Your task to perform on an android device: change the clock display to digital Image 0: 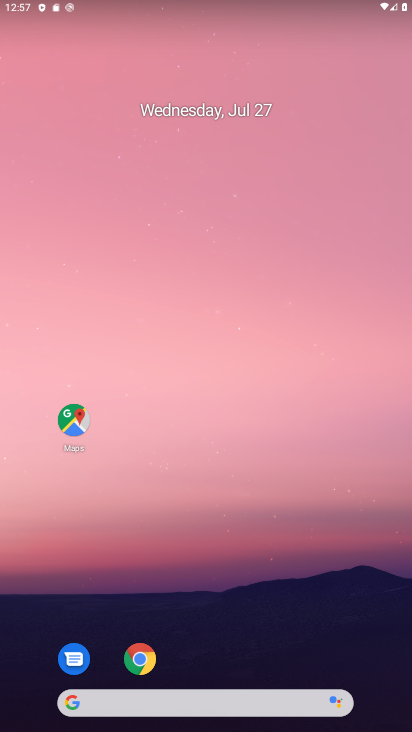
Step 0: drag from (348, 628) to (290, 16)
Your task to perform on an android device: change the clock display to digital Image 1: 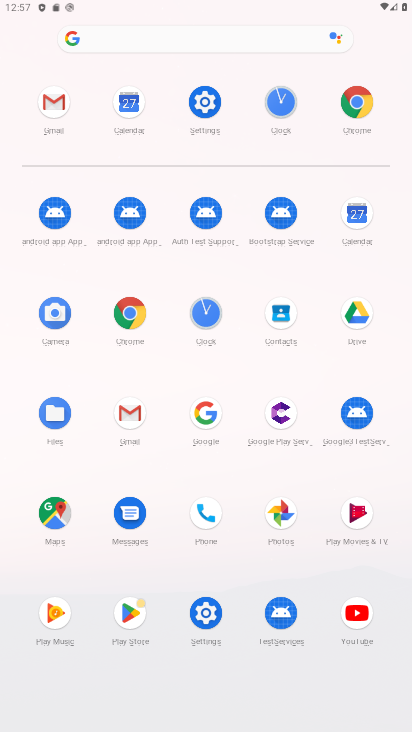
Step 1: click (204, 314)
Your task to perform on an android device: change the clock display to digital Image 2: 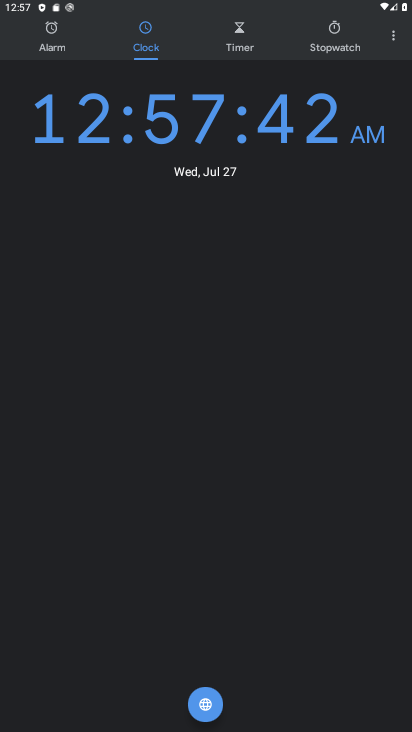
Step 2: click (393, 40)
Your task to perform on an android device: change the clock display to digital Image 3: 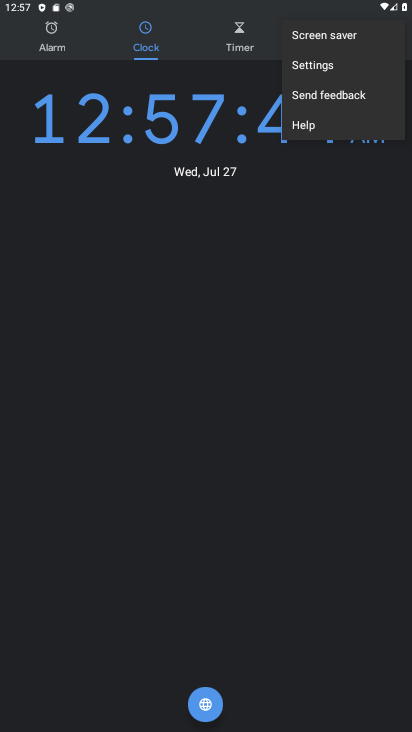
Step 3: click (321, 75)
Your task to perform on an android device: change the clock display to digital Image 4: 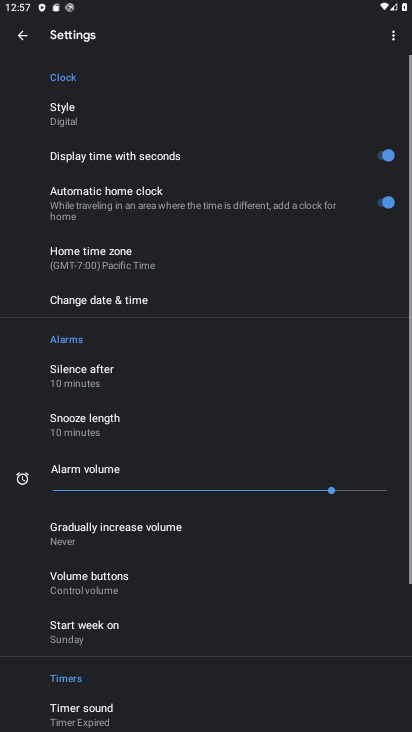
Step 4: click (137, 125)
Your task to perform on an android device: change the clock display to digital Image 5: 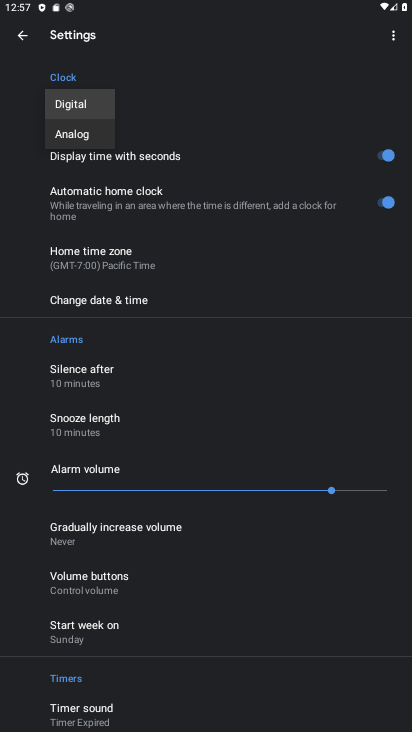
Step 5: task complete